Your task to perform on an android device: delete a single message in the gmail app Image 0: 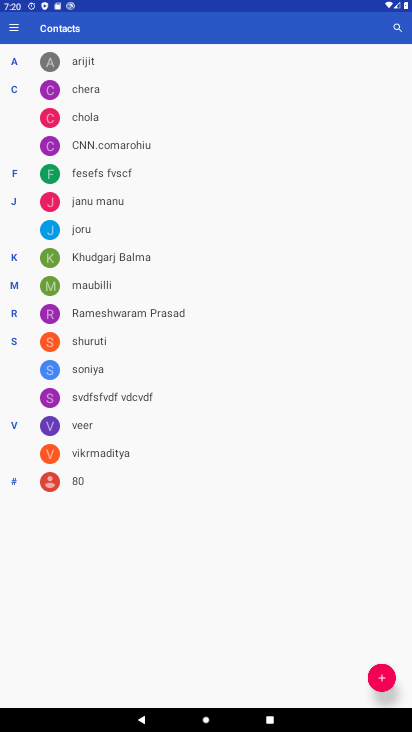
Step 0: press home button
Your task to perform on an android device: delete a single message in the gmail app Image 1: 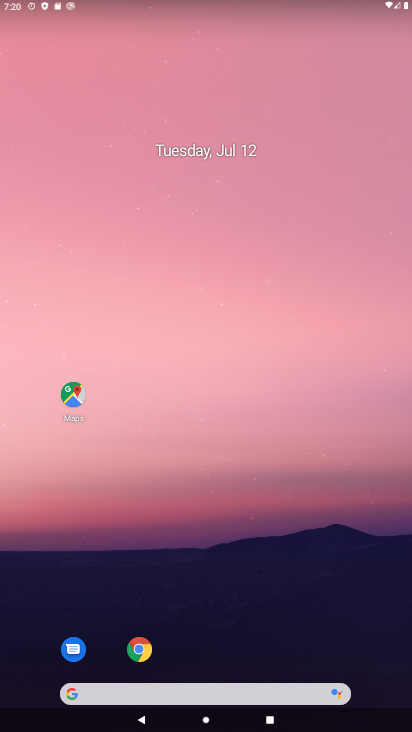
Step 1: drag from (191, 693) to (212, 249)
Your task to perform on an android device: delete a single message in the gmail app Image 2: 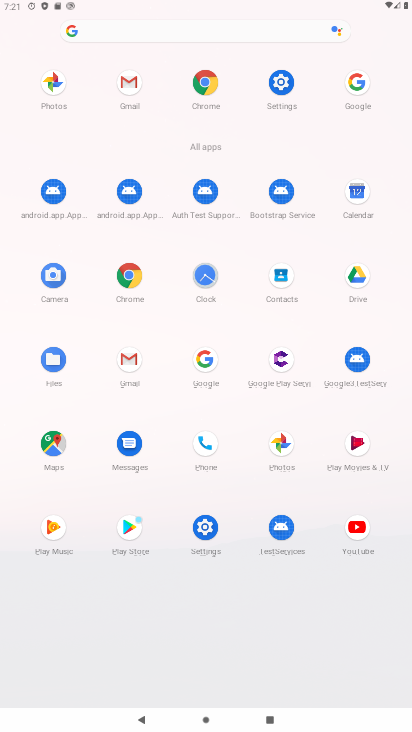
Step 2: click (129, 358)
Your task to perform on an android device: delete a single message in the gmail app Image 3: 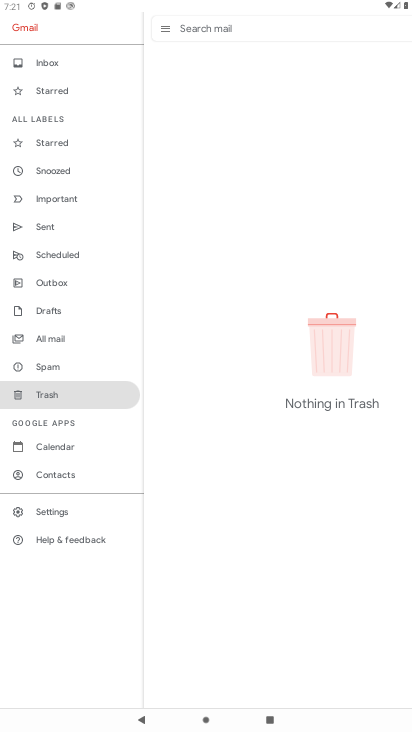
Step 3: click (46, 62)
Your task to perform on an android device: delete a single message in the gmail app Image 4: 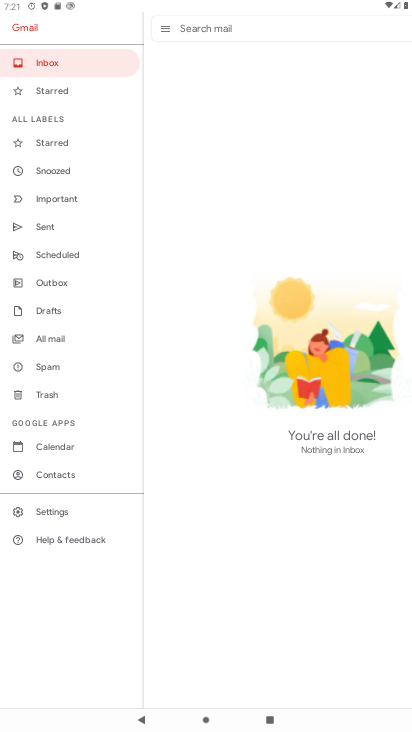
Step 4: click (56, 98)
Your task to perform on an android device: delete a single message in the gmail app Image 5: 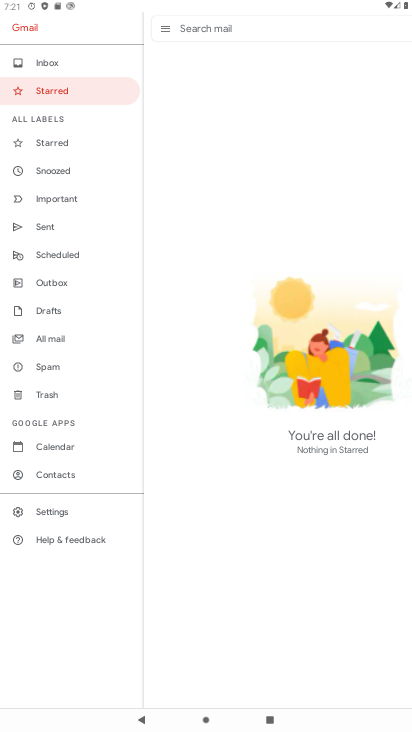
Step 5: click (50, 142)
Your task to perform on an android device: delete a single message in the gmail app Image 6: 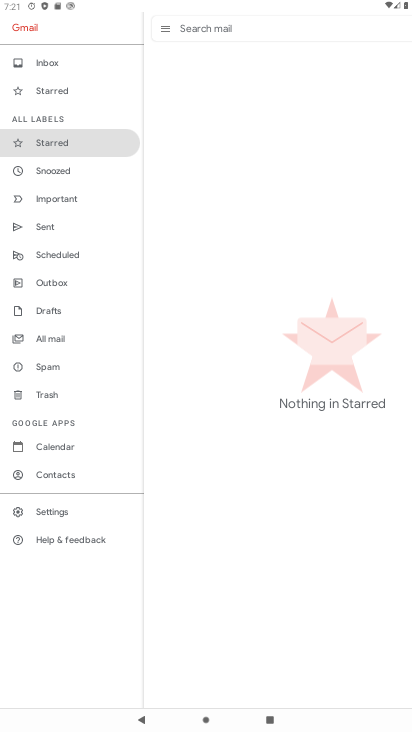
Step 6: click (52, 172)
Your task to perform on an android device: delete a single message in the gmail app Image 7: 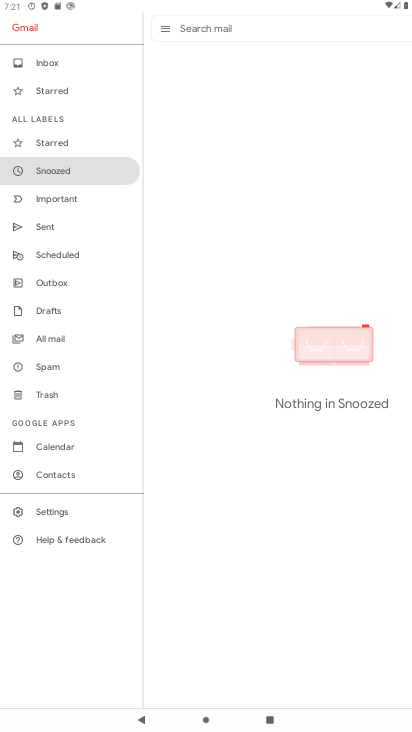
Step 7: click (62, 203)
Your task to perform on an android device: delete a single message in the gmail app Image 8: 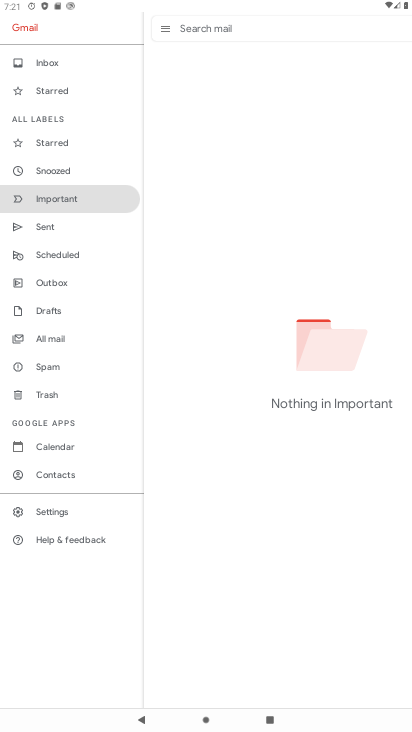
Step 8: click (45, 231)
Your task to perform on an android device: delete a single message in the gmail app Image 9: 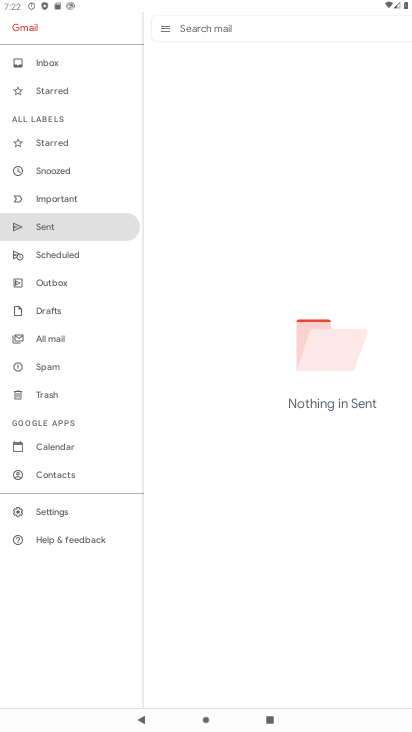
Step 9: click (50, 250)
Your task to perform on an android device: delete a single message in the gmail app Image 10: 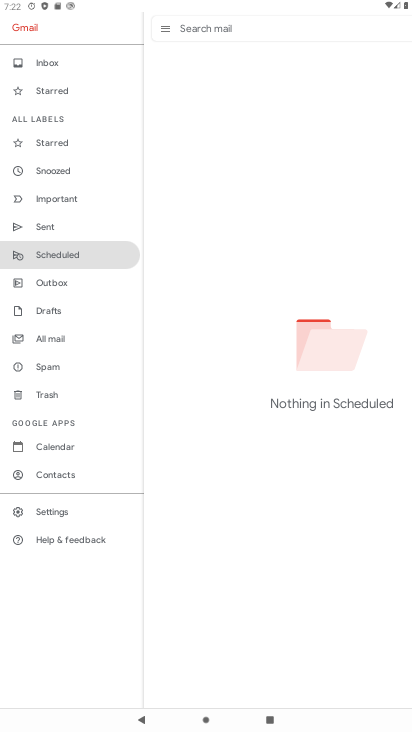
Step 10: click (51, 284)
Your task to perform on an android device: delete a single message in the gmail app Image 11: 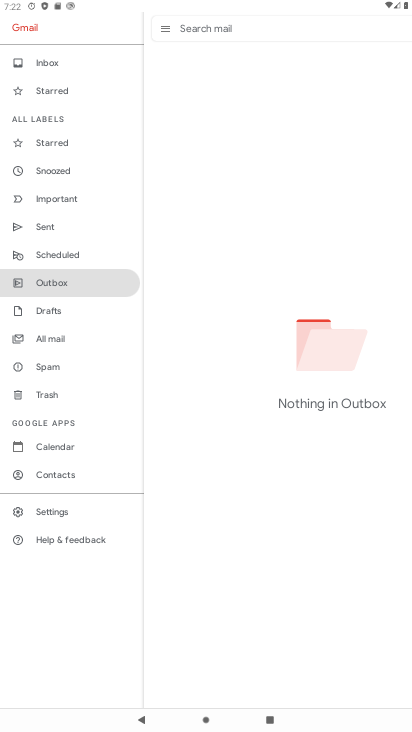
Step 11: task complete